Your task to perform on an android device: toggle show notifications on the lock screen Image 0: 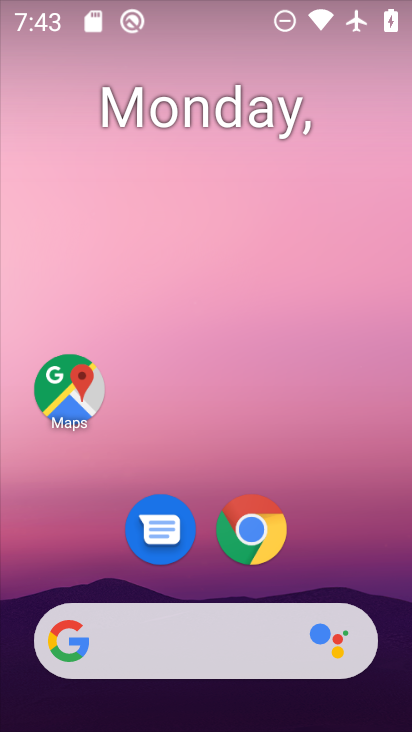
Step 0: drag from (354, 499) to (327, 78)
Your task to perform on an android device: toggle show notifications on the lock screen Image 1: 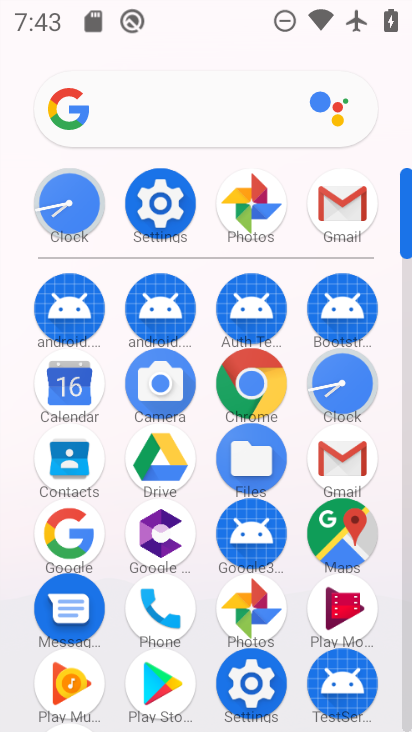
Step 1: click (161, 198)
Your task to perform on an android device: toggle show notifications on the lock screen Image 2: 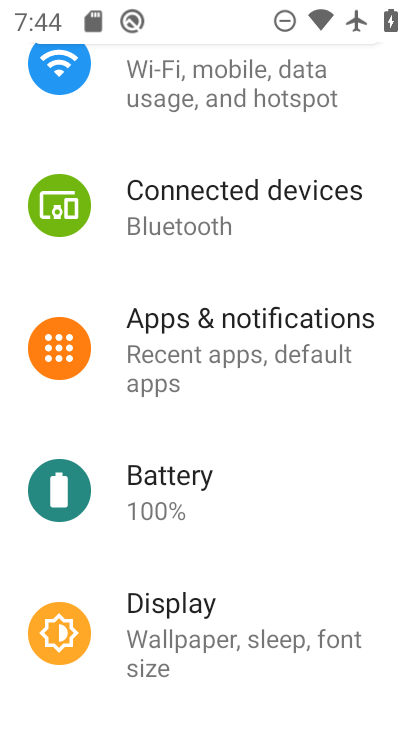
Step 2: click (253, 318)
Your task to perform on an android device: toggle show notifications on the lock screen Image 3: 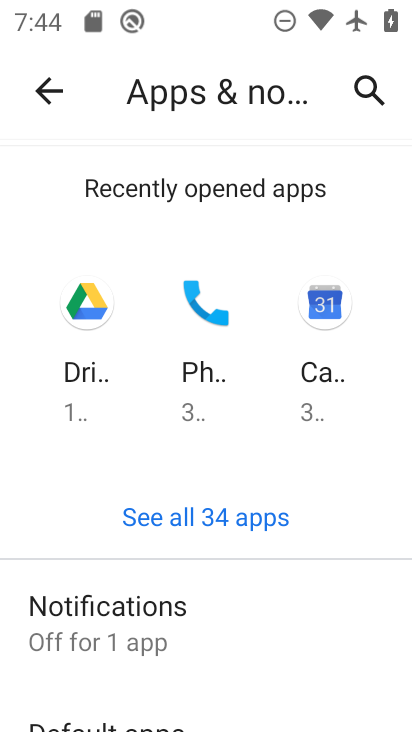
Step 3: drag from (319, 586) to (335, 131)
Your task to perform on an android device: toggle show notifications on the lock screen Image 4: 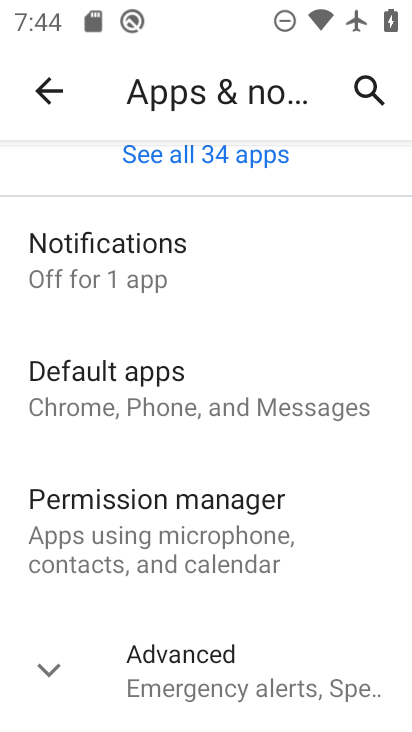
Step 4: click (120, 246)
Your task to perform on an android device: toggle show notifications on the lock screen Image 5: 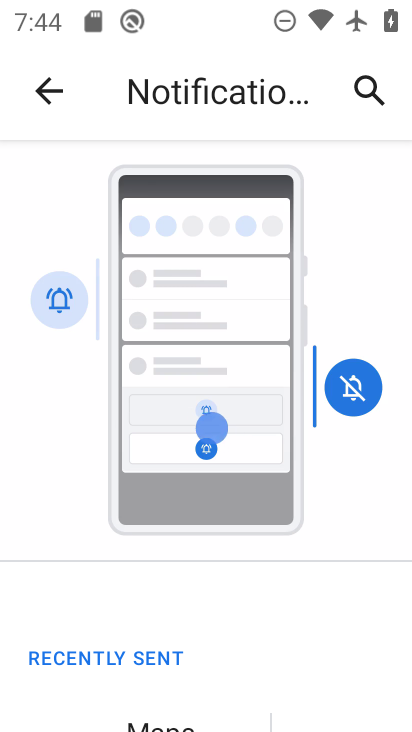
Step 5: drag from (342, 640) to (329, 223)
Your task to perform on an android device: toggle show notifications on the lock screen Image 6: 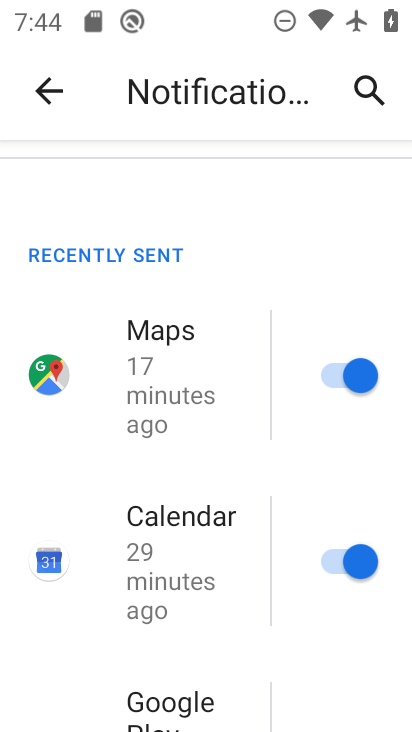
Step 6: drag from (297, 609) to (291, 384)
Your task to perform on an android device: toggle show notifications on the lock screen Image 7: 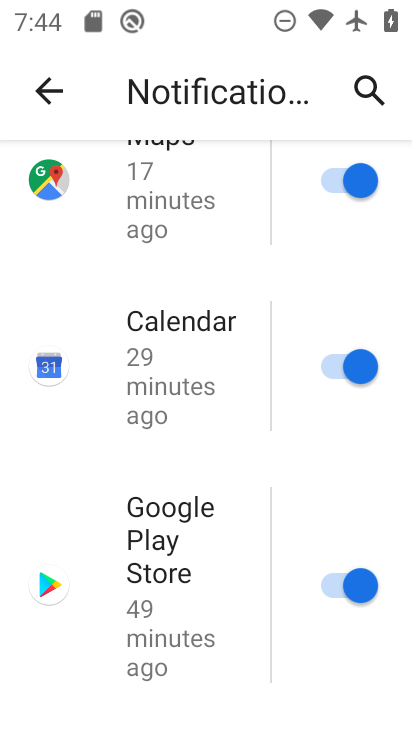
Step 7: drag from (281, 495) to (289, 72)
Your task to perform on an android device: toggle show notifications on the lock screen Image 8: 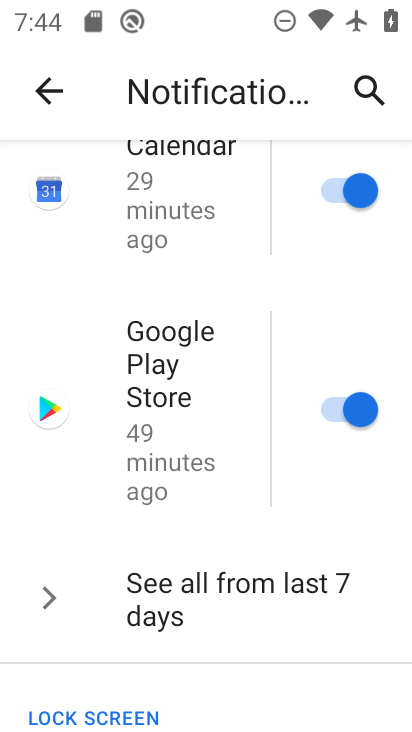
Step 8: drag from (256, 524) to (238, 212)
Your task to perform on an android device: toggle show notifications on the lock screen Image 9: 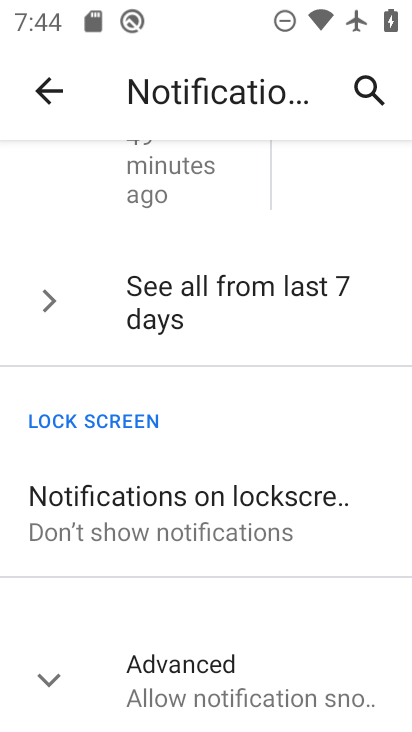
Step 9: click (214, 486)
Your task to perform on an android device: toggle show notifications on the lock screen Image 10: 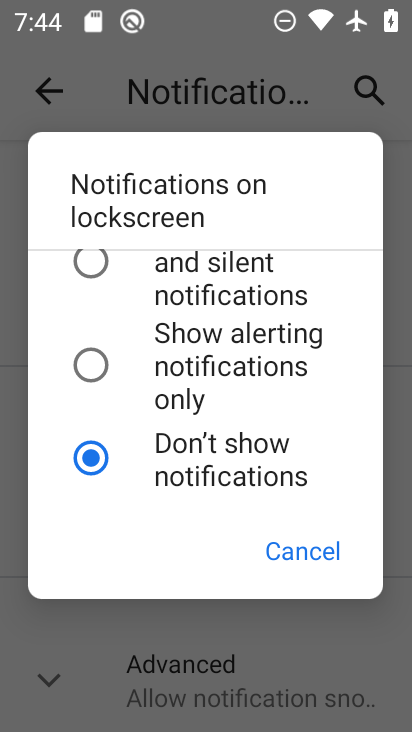
Step 10: click (93, 258)
Your task to perform on an android device: toggle show notifications on the lock screen Image 11: 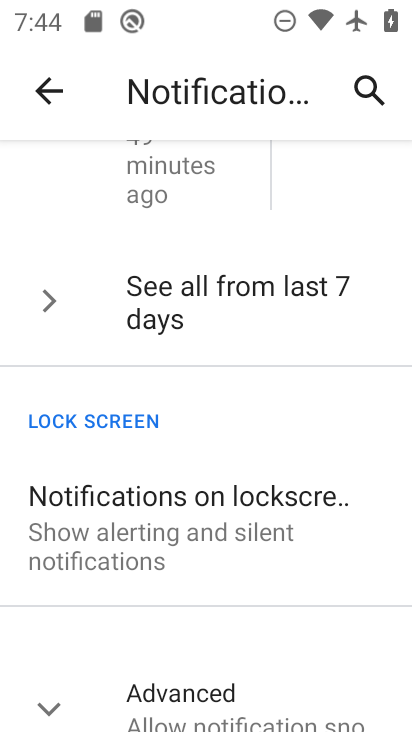
Step 11: task complete